Your task to perform on an android device: turn off improve location accuracy Image 0: 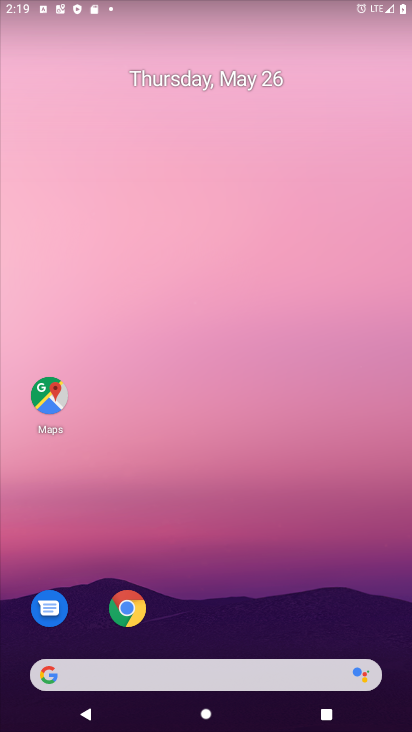
Step 0: drag from (229, 624) to (227, 148)
Your task to perform on an android device: turn off improve location accuracy Image 1: 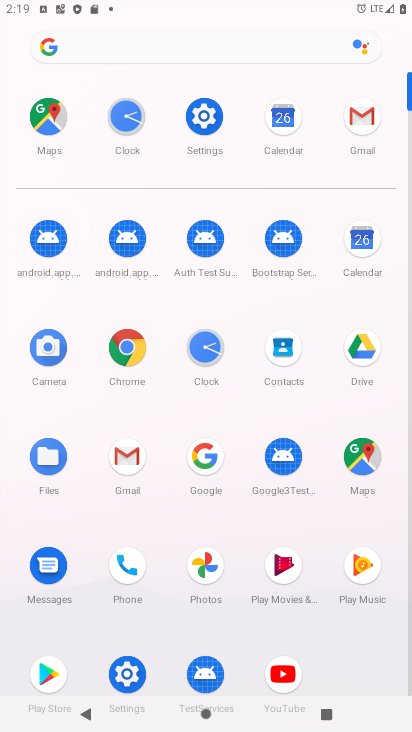
Step 1: click (128, 680)
Your task to perform on an android device: turn off improve location accuracy Image 2: 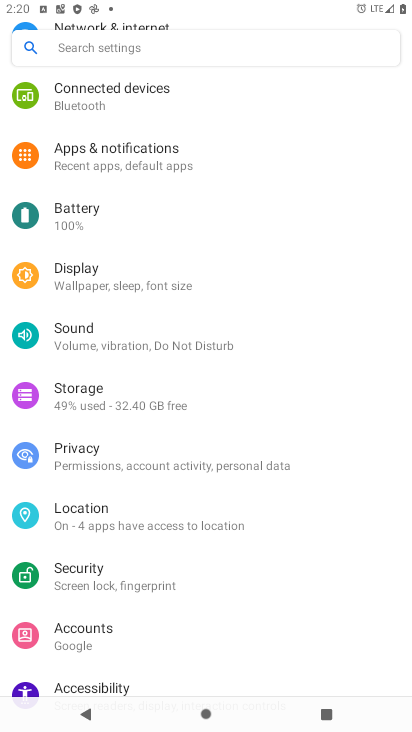
Step 2: click (88, 521)
Your task to perform on an android device: turn off improve location accuracy Image 3: 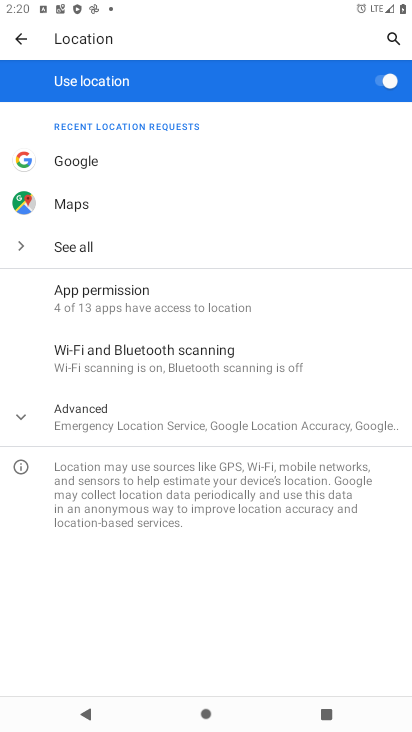
Step 3: click (85, 400)
Your task to perform on an android device: turn off improve location accuracy Image 4: 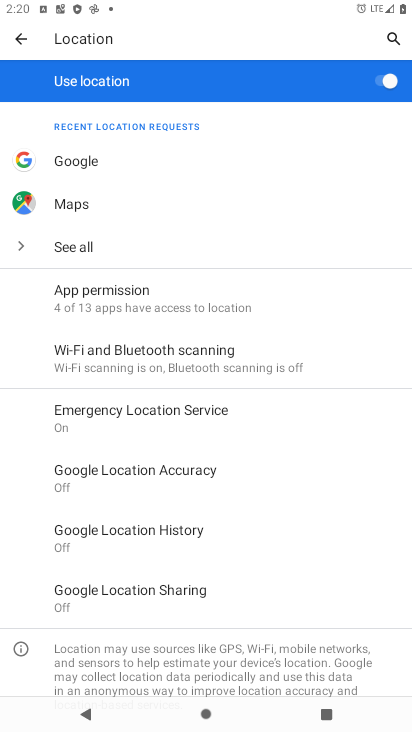
Step 4: click (116, 463)
Your task to perform on an android device: turn off improve location accuracy Image 5: 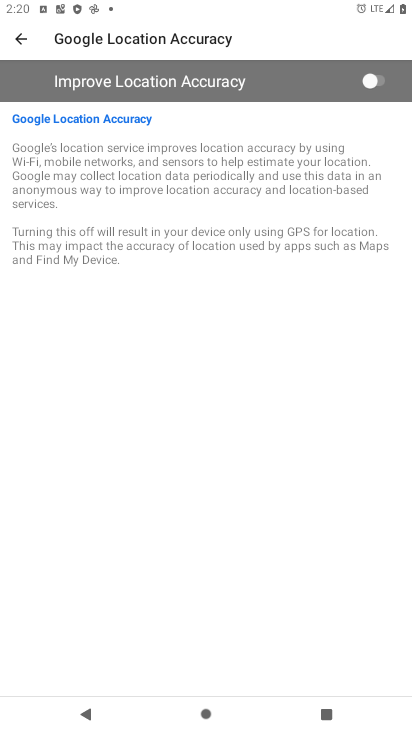
Step 5: task complete